Your task to perform on an android device: Search for the new iphone 13 pro on Etsy. Image 0: 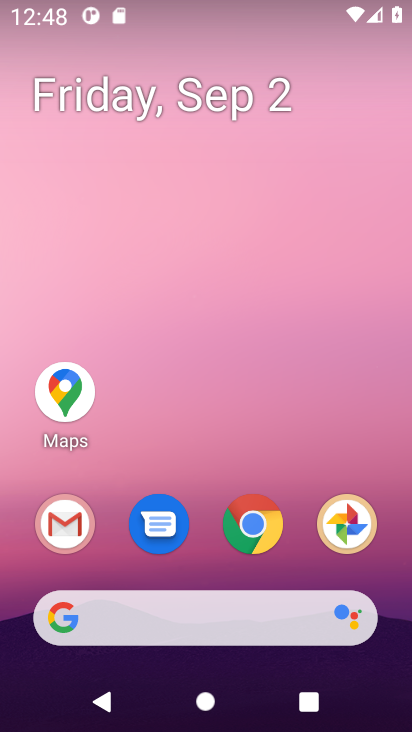
Step 0: press home button
Your task to perform on an android device: Search for the new iphone 13 pro on Etsy. Image 1: 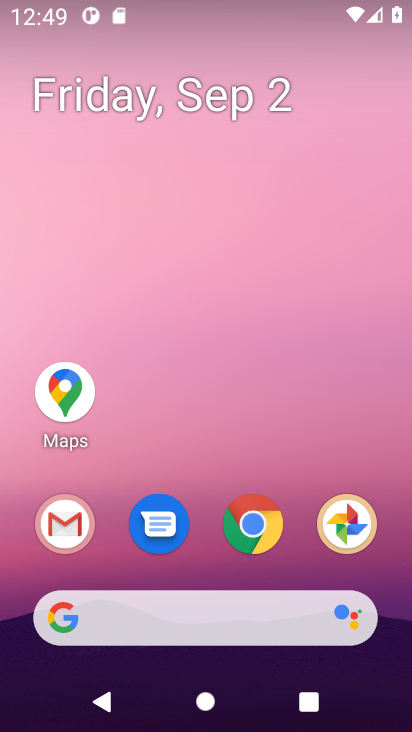
Step 1: click (274, 621)
Your task to perform on an android device: Search for the new iphone 13 pro on Etsy. Image 2: 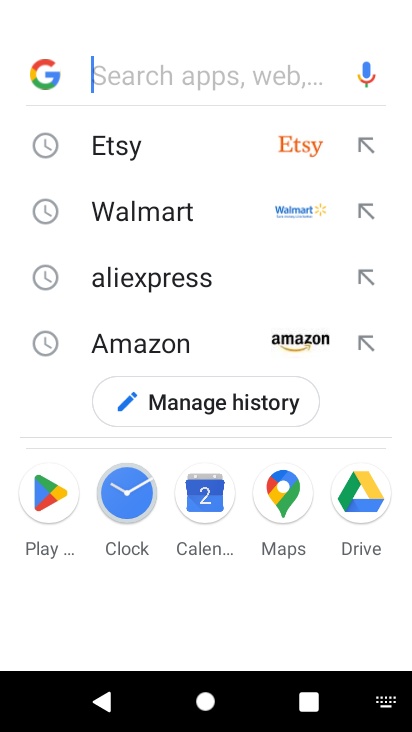
Step 2: click (169, 150)
Your task to perform on an android device: Search for the new iphone 13 pro on Etsy. Image 3: 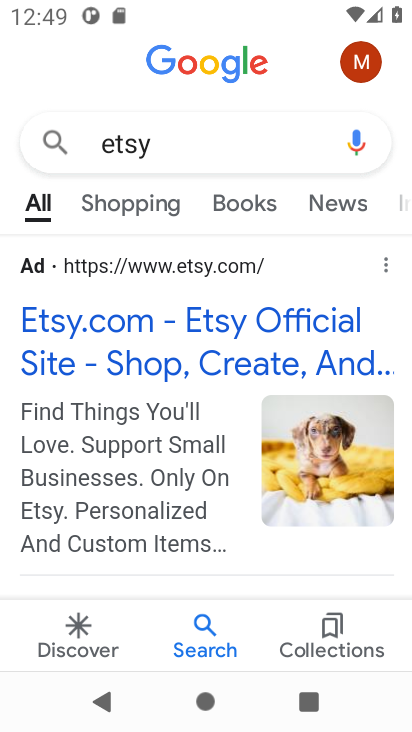
Step 3: click (146, 336)
Your task to perform on an android device: Search for the new iphone 13 pro on Etsy. Image 4: 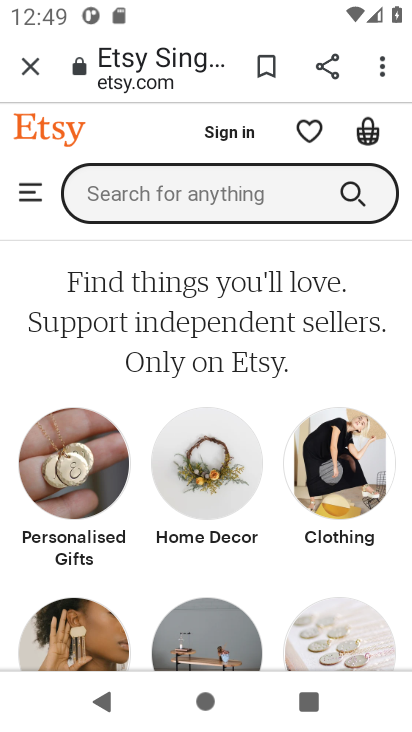
Step 4: click (199, 189)
Your task to perform on an android device: Search for the new iphone 13 pro on Etsy. Image 5: 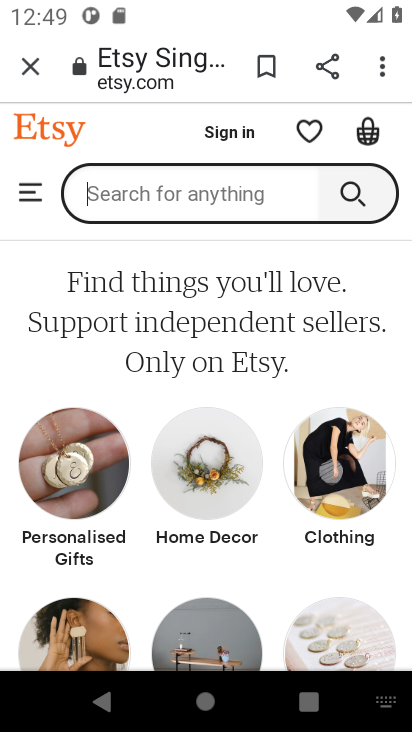
Step 5: type " iphone 13 pro "
Your task to perform on an android device: Search for the new iphone 13 pro on Etsy. Image 6: 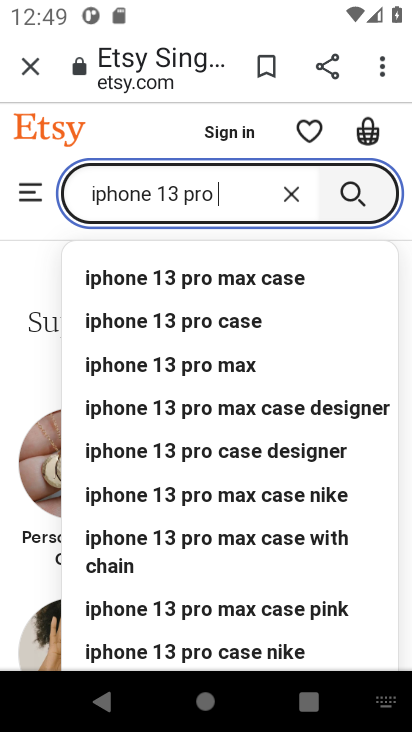
Step 6: click (348, 189)
Your task to perform on an android device: Search for the new iphone 13 pro on Etsy. Image 7: 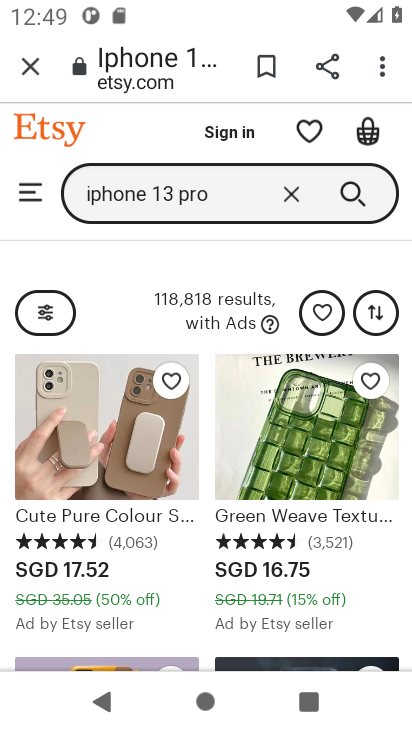
Step 7: task complete